Your task to perform on an android device: turn off translation in the chrome app Image 0: 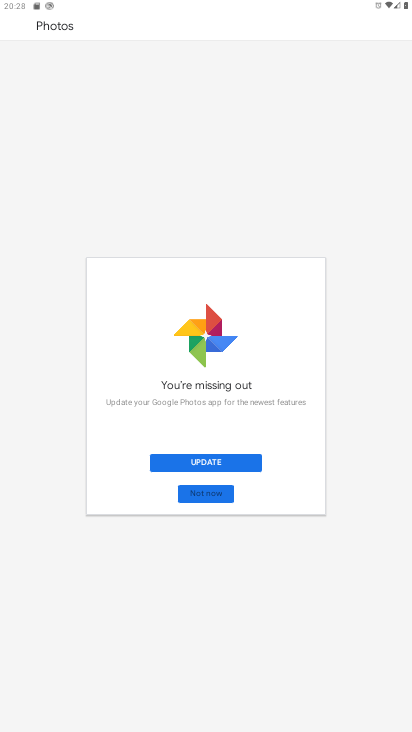
Step 0: press home button
Your task to perform on an android device: turn off translation in the chrome app Image 1: 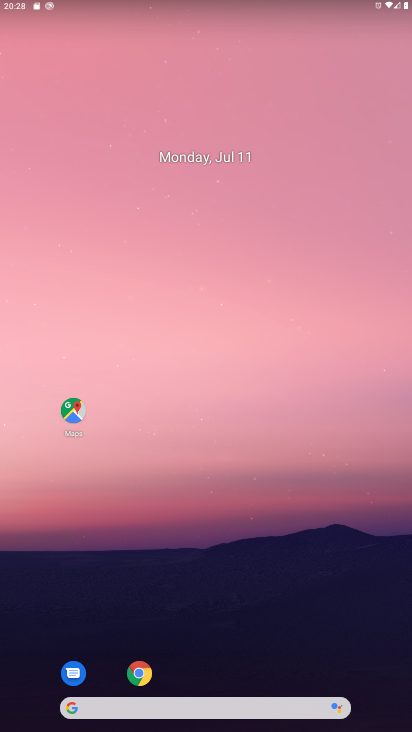
Step 1: click (135, 667)
Your task to perform on an android device: turn off translation in the chrome app Image 2: 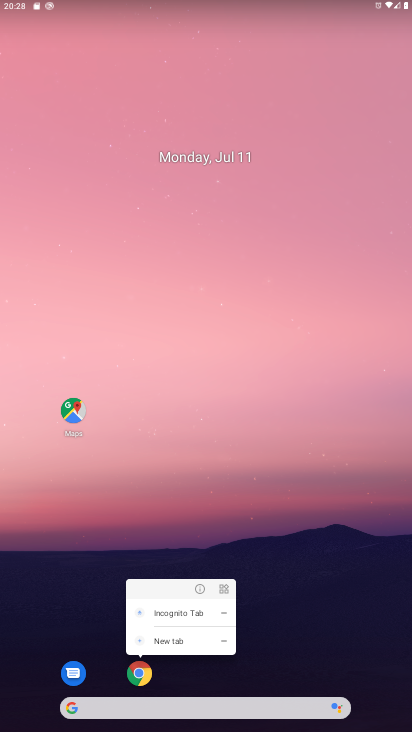
Step 2: click (137, 670)
Your task to perform on an android device: turn off translation in the chrome app Image 3: 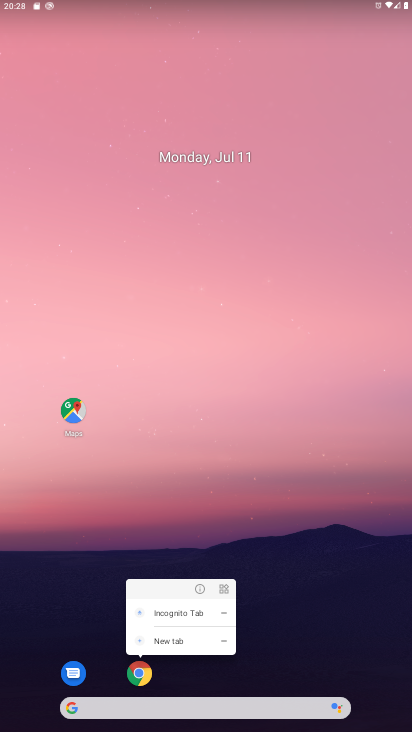
Step 3: click (137, 675)
Your task to perform on an android device: turn off translation in the chrome app Image 4: 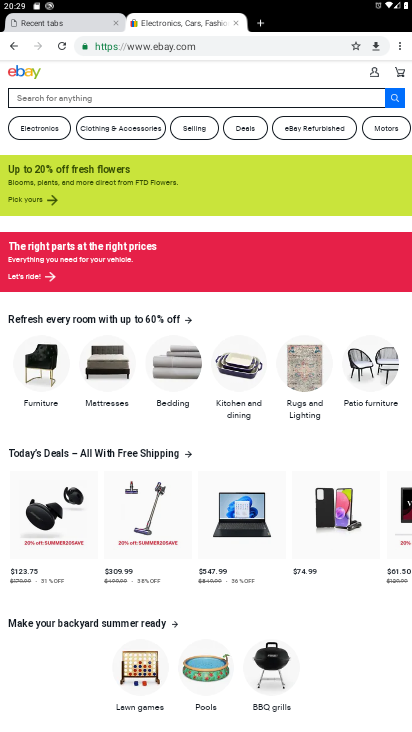
Step 4: click (397, 46)
Your task to perform on an android device: turn off translation in the chrome app Image 5: 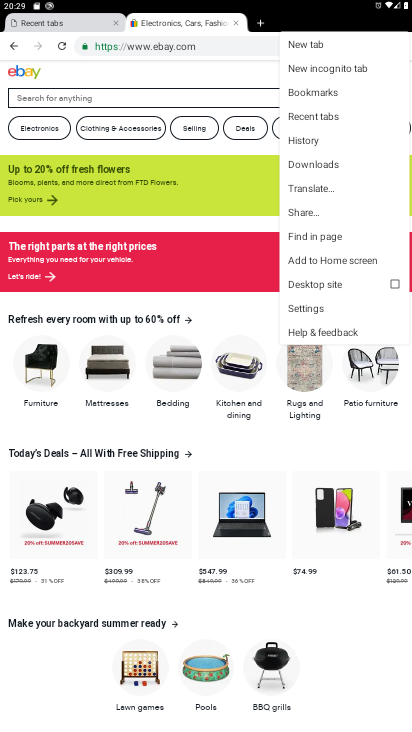
Step 5: click (330, 310)
Your task to perform on an android device: turn off translation in the chrome app Image 6: 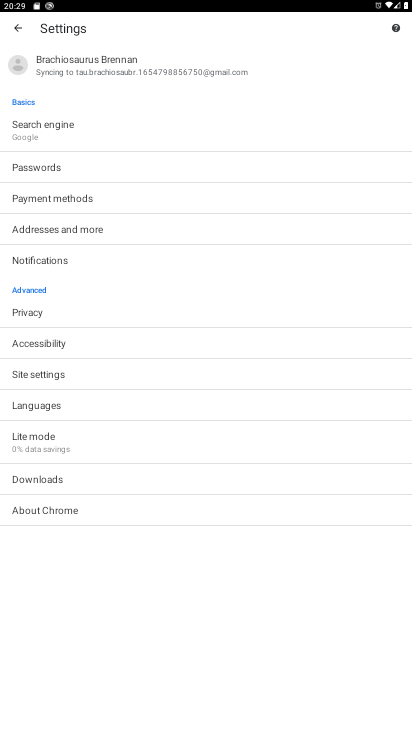
Step 6: click (68, 403)
Your task to perform on an android device: turn off translation in the chrome app Image 7: 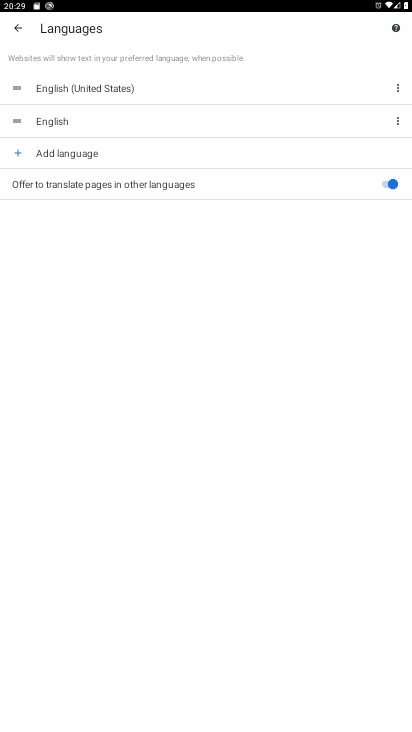
Step 7: click (390, 185)
Your task to perform on an android device: turn off translation in the chrome app Image 8: 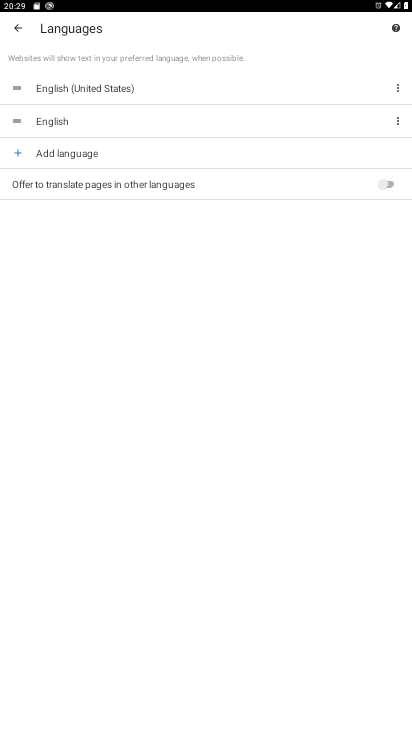
Step 8: task complete